Your task to perform on an android device: Empty the shopping cart on costco.com. Search for "amazon basics triple a" on costco.com, select the first entry, add it to the cart, then select checkout. Image 0: 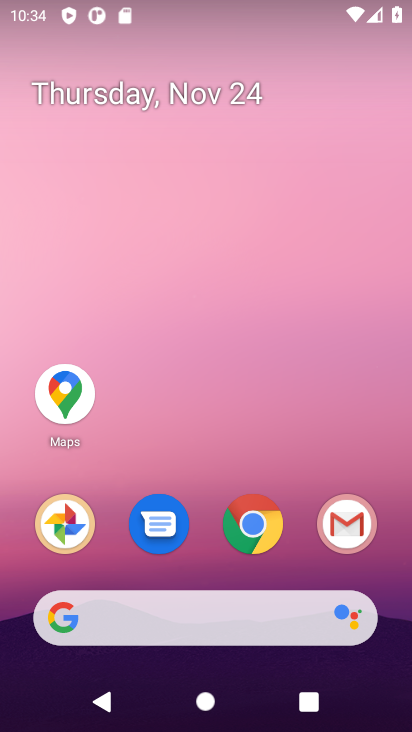
Step 0: click (253, 523)
Your task to perform on an android device: Empty the shopping cart on costco.com. Search for "amazon basics triple a" on costco.com, select the first entry, add it to the cart, then select checkout. Image 1: 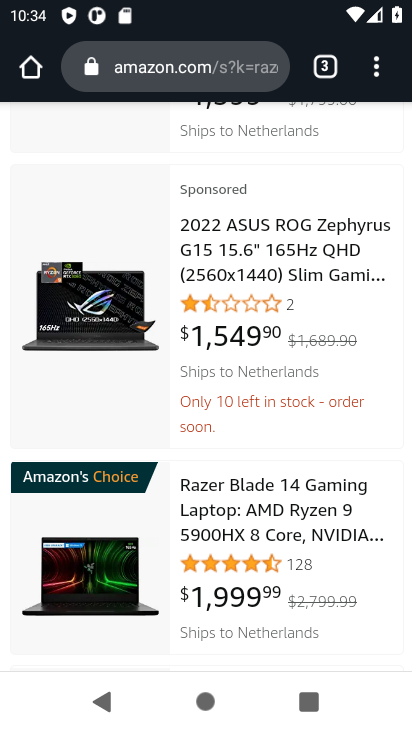
Step 1: click (165, 71)
Your task to perform on an android device: Empty the shopping cart on costco.com. Search for "amazon basics triple a" on costco.com, select the first entry, add it to the cart, then select checkout. Image 2: 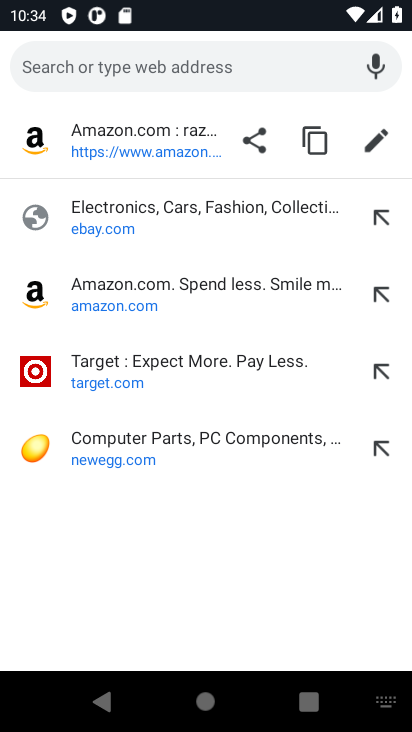
Step 2: type "costco.com"
Your task to perform on an android device: Empty the shopping cart on costco.com. Search for "amazon basics triple a" on costco.com, select the first entry, add it to the cart, then select checkout. Image 3: 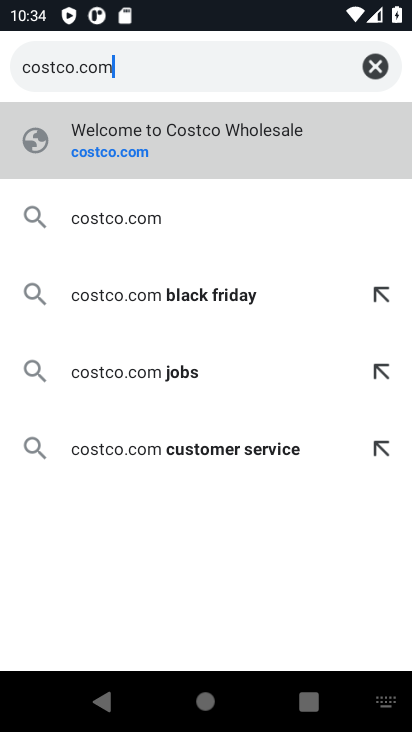
Step 3: click (86, 153)
Your task to perform on an android device: Empty the shopping cart on costco.com. Search for "amazon basics triple a" on costco.com, select the first entry, add it to the cart, then select checkout. Image 4: 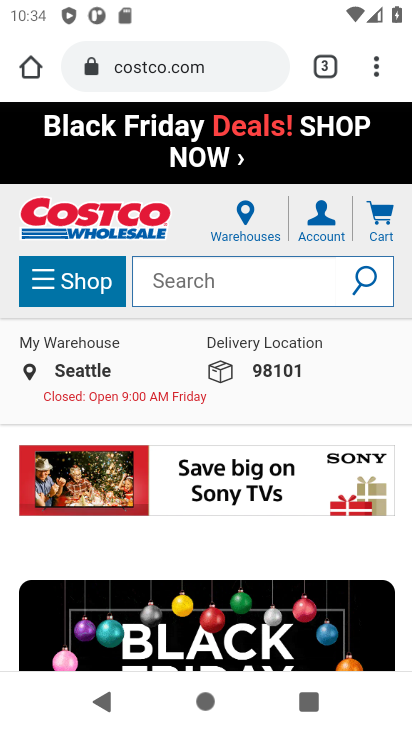
Step 4: click (378, 224)
Your task to perform on an android device: Empty the shopping cart on costco.com. Search for "amazon basics triple a" on costco.com, select the first entry, add it to the cart, then select checkout. Image 5: 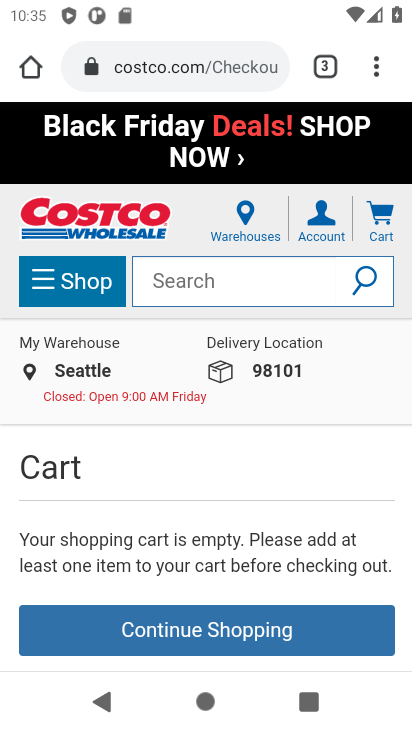
Step 5: click (186, 291)
Your task to perform on an android device: Empty the shopping cart on costco.com. Search for "amazon basics triple a" on costco.com, select the first entry, add it to the cart, then select checkout. Image 6: 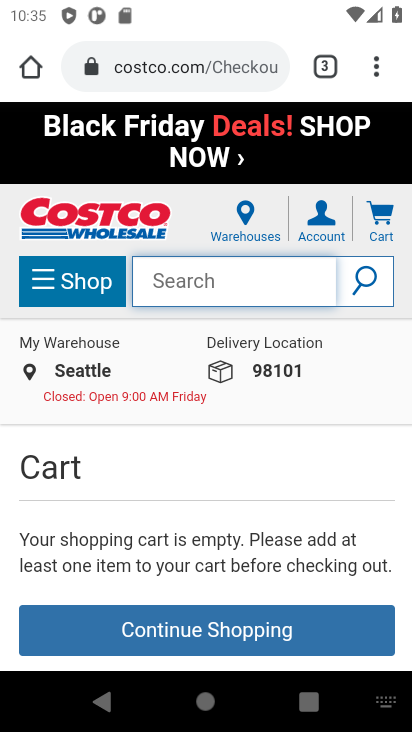
Step 6: type "amazon basics triple a"
Your task to perform on an android device: Empty the shopping cart on costco.com. Search for "amazon basics triple a" on costco.com, select the first entry, add it to the cart, then select checkout. Image 7: 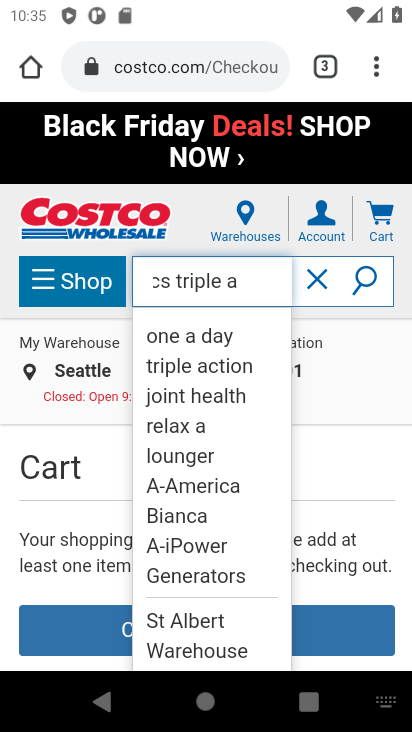
Step 7: click (364, 274)
Your task to perform on an android device: Empty the shopping cart on costco.com. Search for "amazon basics triple a" on costco.com, select the first entry, add it to the cart, then select checkout. Image 8: 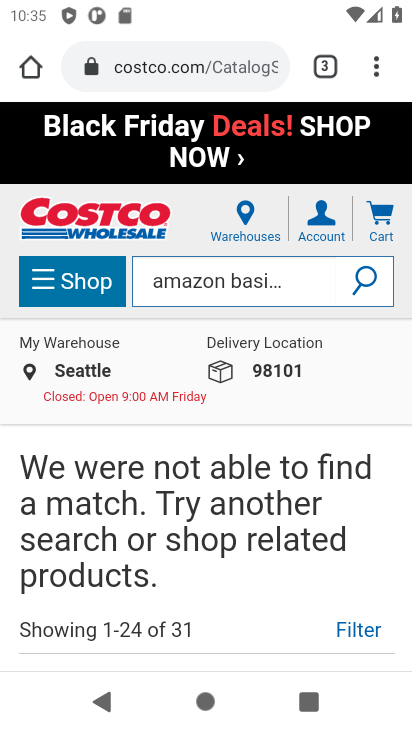
Step 8: task complete